Your task to perform on an android device: Turn on the flashlight Image 0: 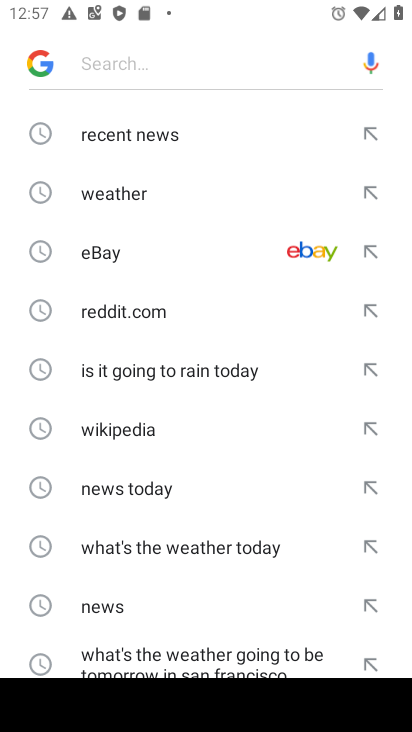
Step 0: press home button
Your task to perform on an android device: Turn on the flashlight Image 1: 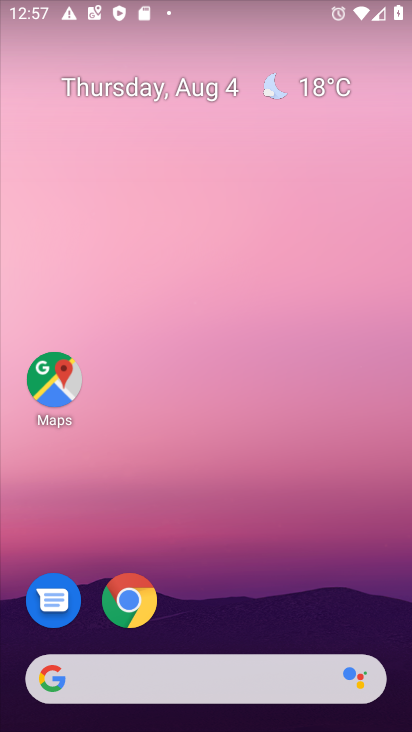
Step 1: task complete